Your task to perform on an android device: Open Youtube and go to the subscriptions tab Image 0: 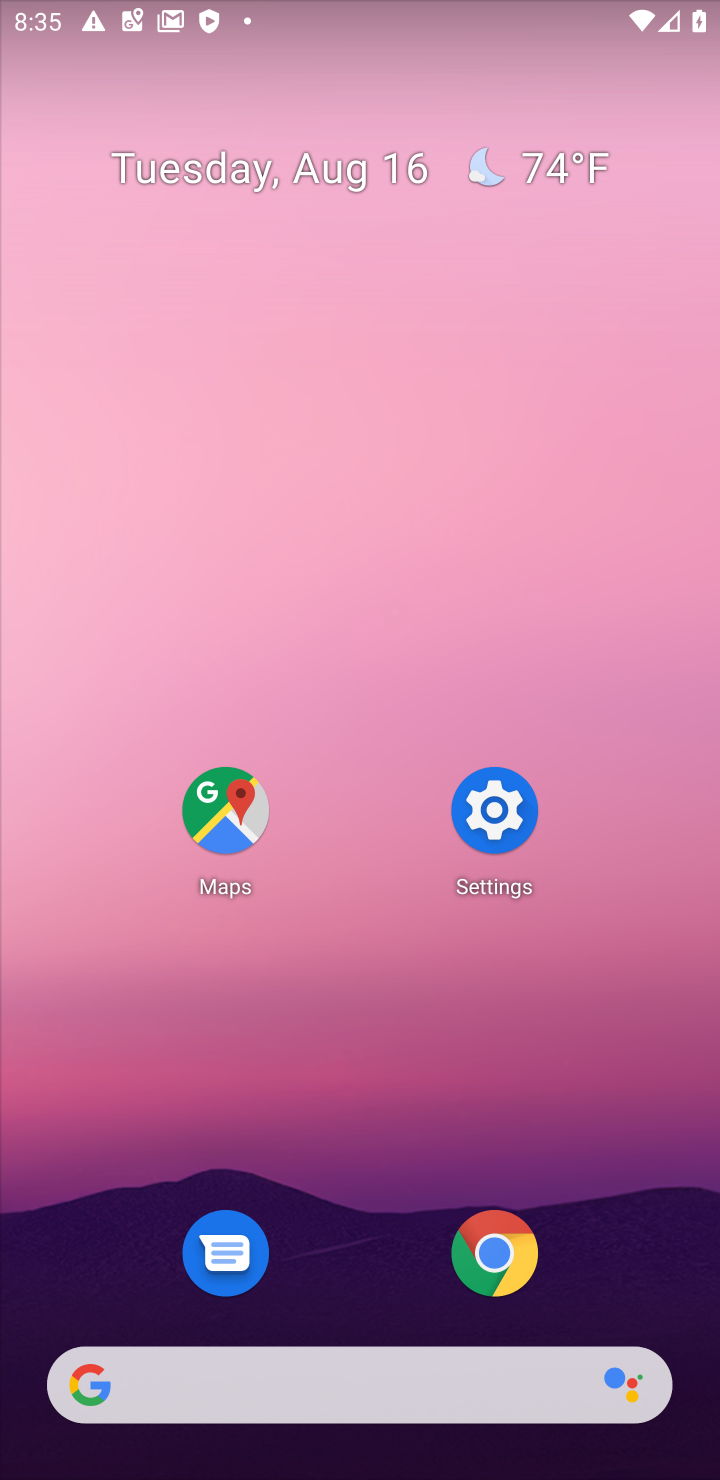
Step 0: drag from (378, 1264) to (514, 364)
Your task to perform on an android device: Open Youtube and go to the subscriptions tab Image 1: 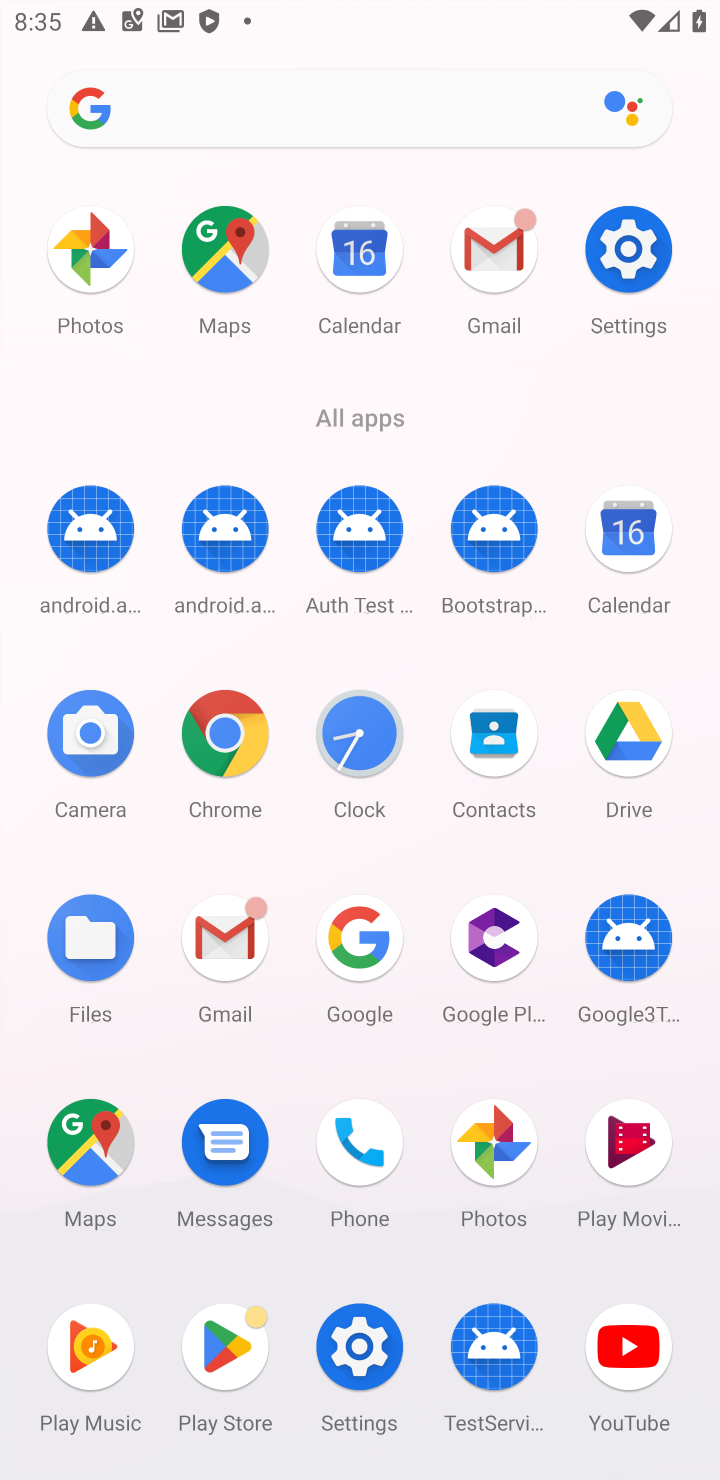
Step 1: click (612, 1347)
Your task to perform on an android device: Open Youtube and go to the subscriptions tab Image 2: 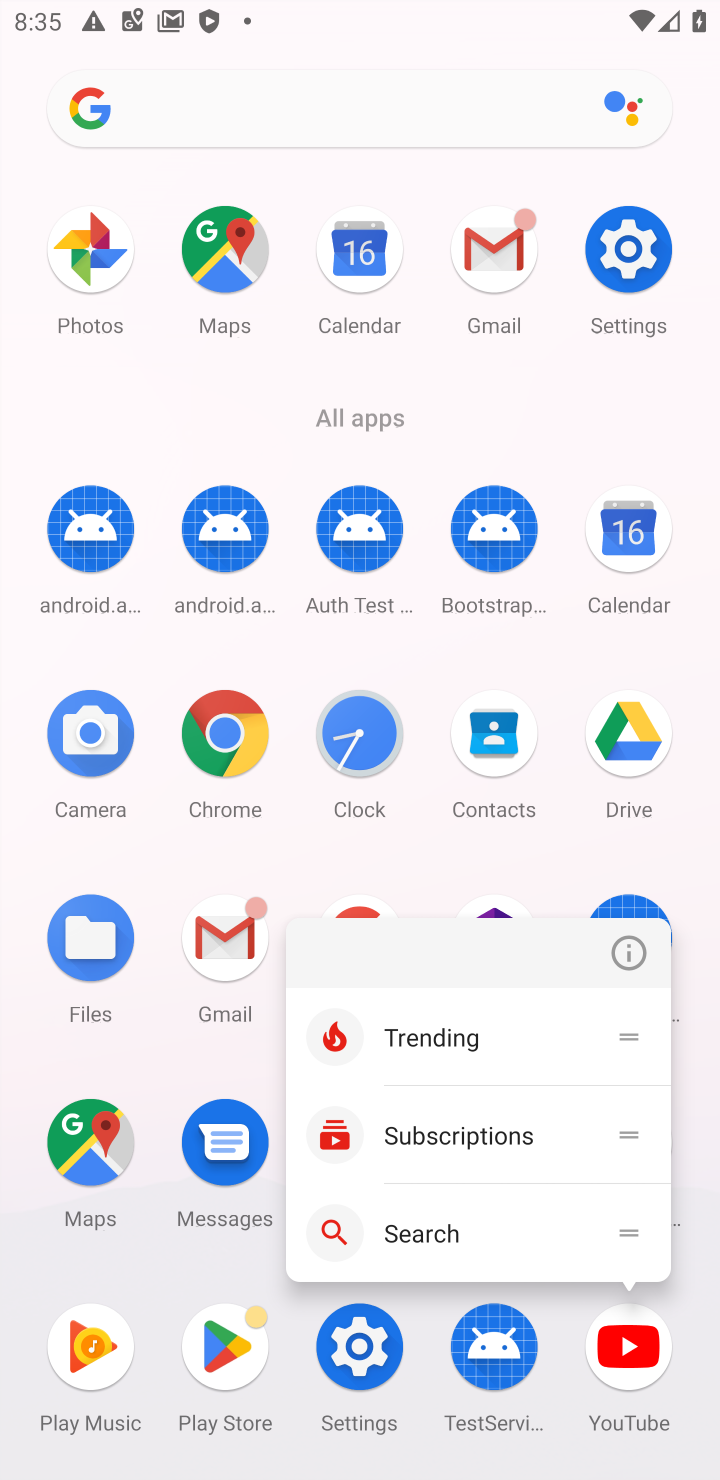
Step 2: click (623, 1352)
Your task to perform on an android device: Open Youtube and go to the subscriptions tab Image 3: 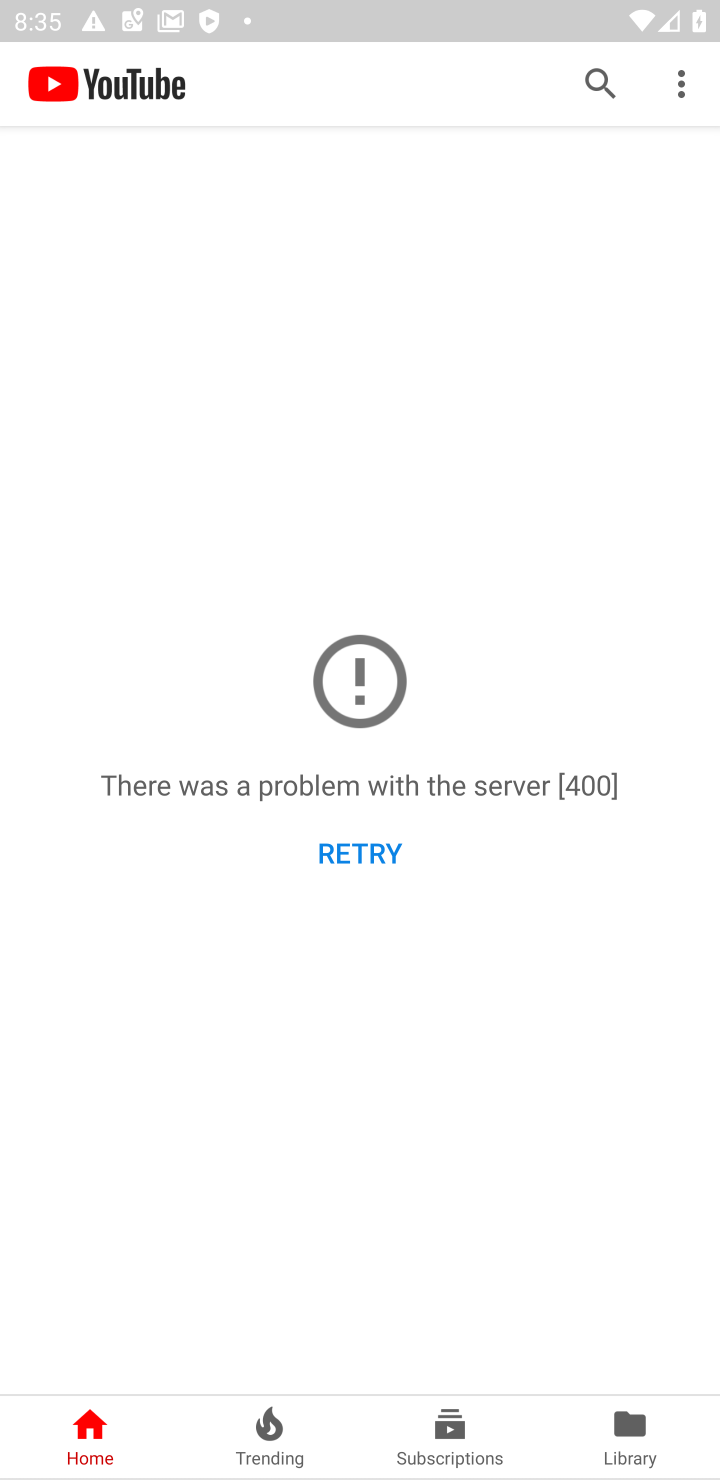
Step 3: click (346, 850)
Your task to perform on an android device: Open Youtube and go to the subscriptions tab Image 4: 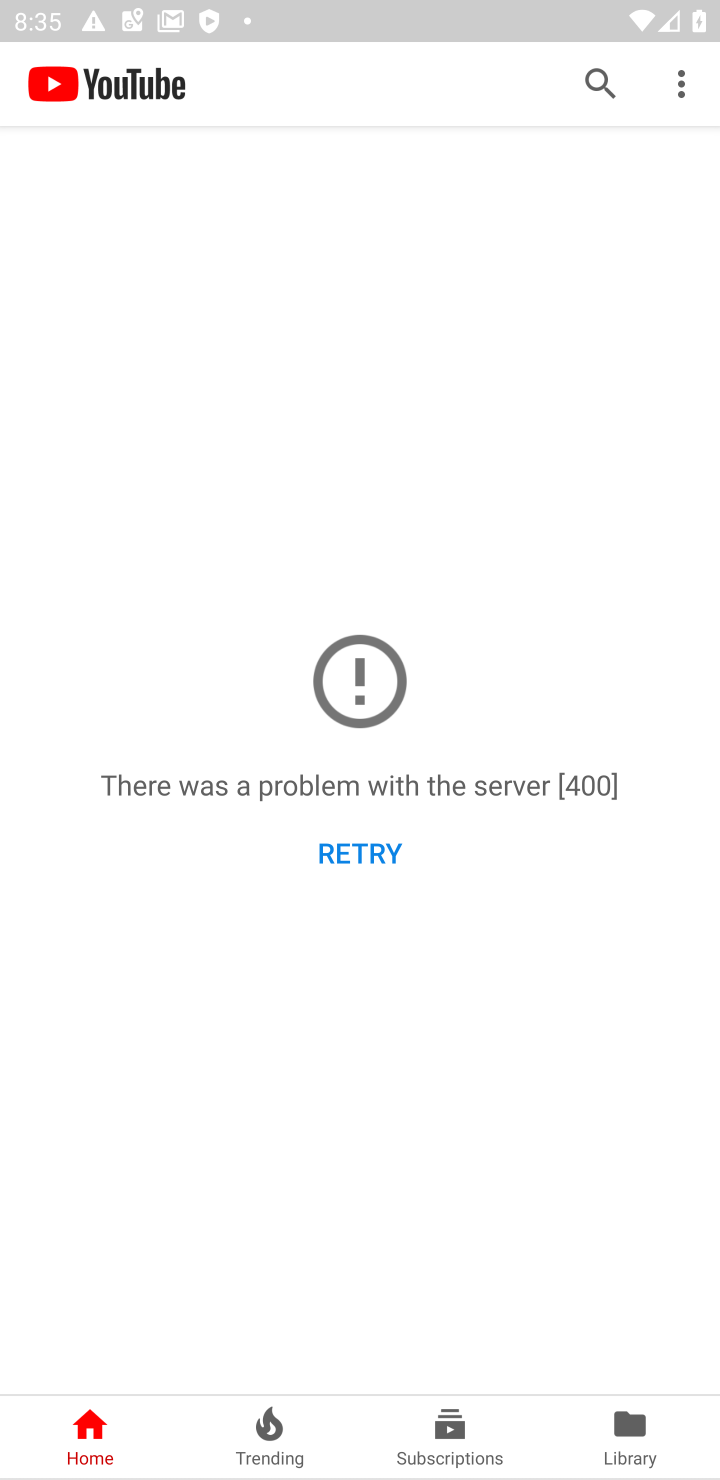
Step 4: click (456, 1434)
Your task to perform on an android device: Open Youtube and go to the subscriptions tab Image 5: 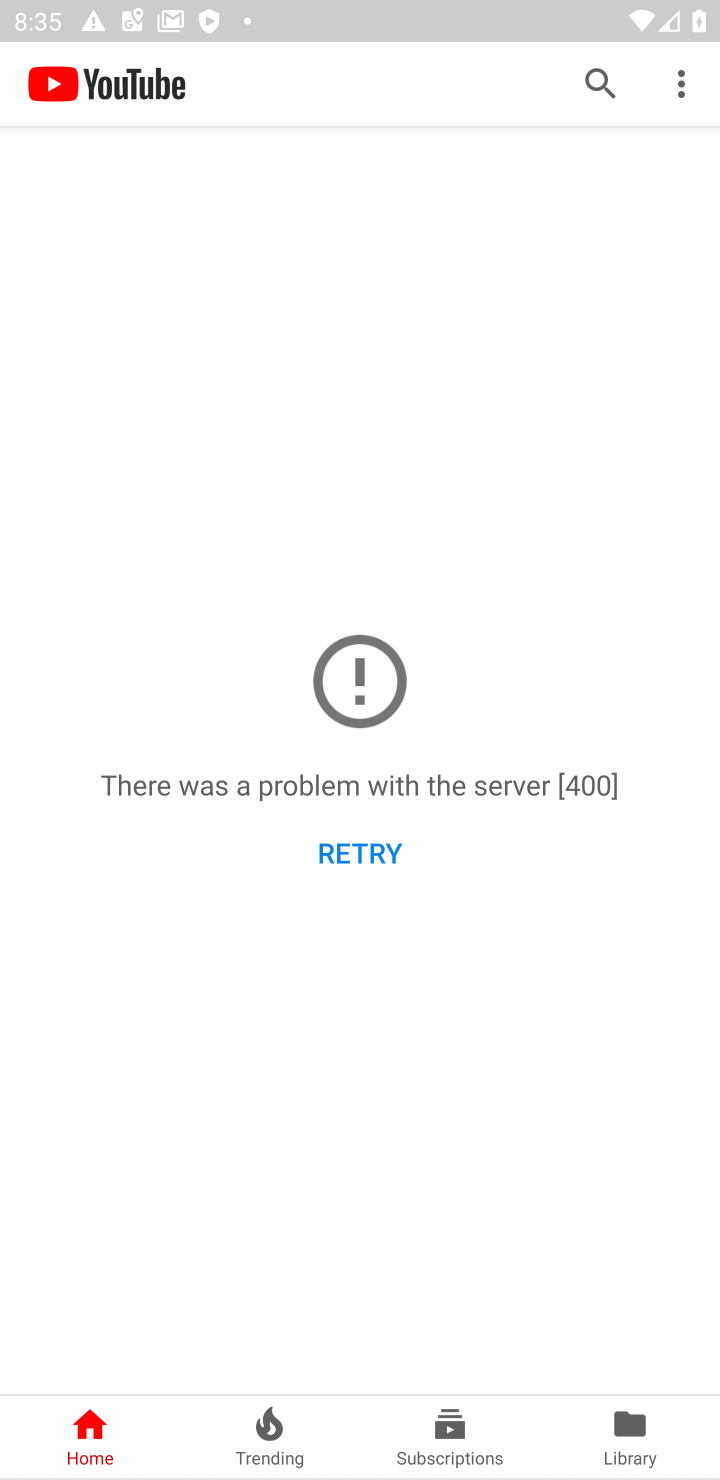
Step 5: click (452, 1453)
Your task to perform on an android device: Open Youtube and go to the subscriptions tab Image 6: 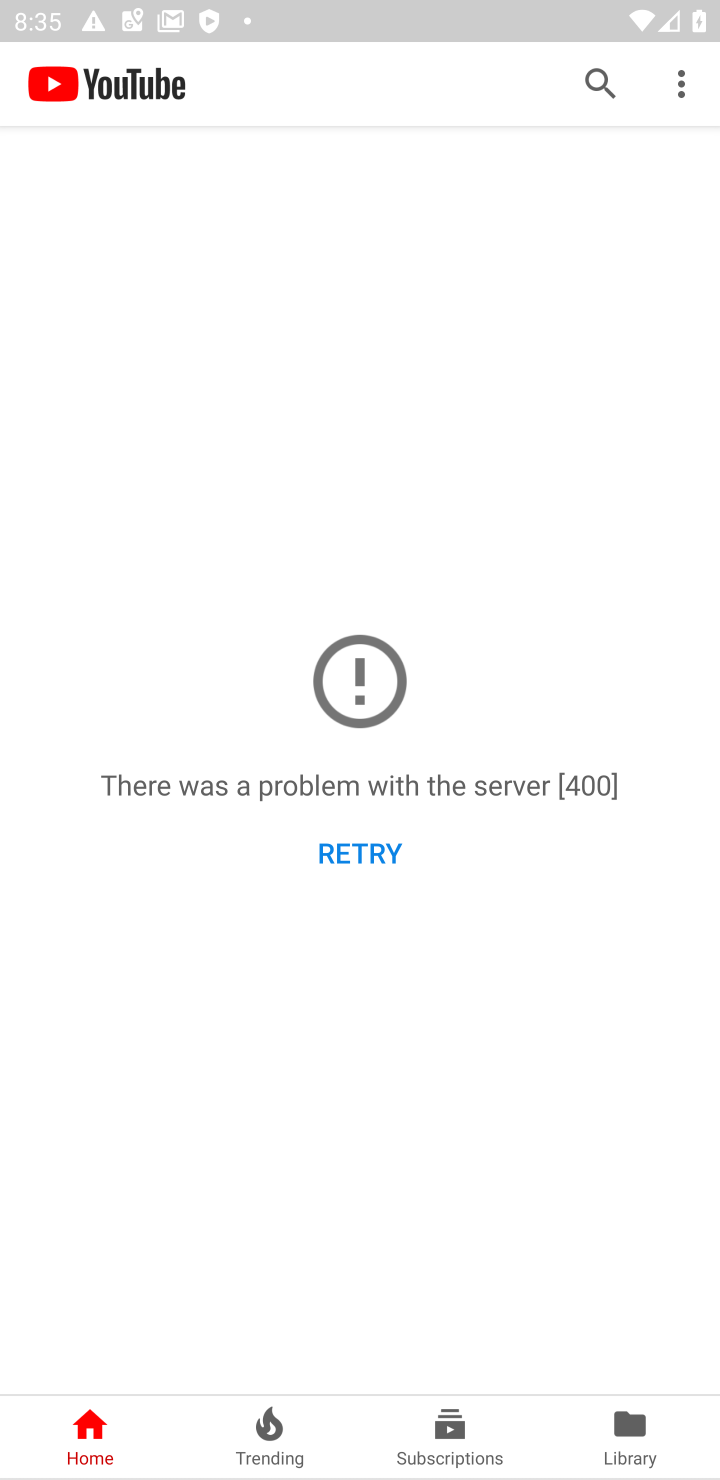
Step 6: click (444, 1423)
Your task to perform on an android device: Open Youtube and go to the subscriptions tab Image 7: 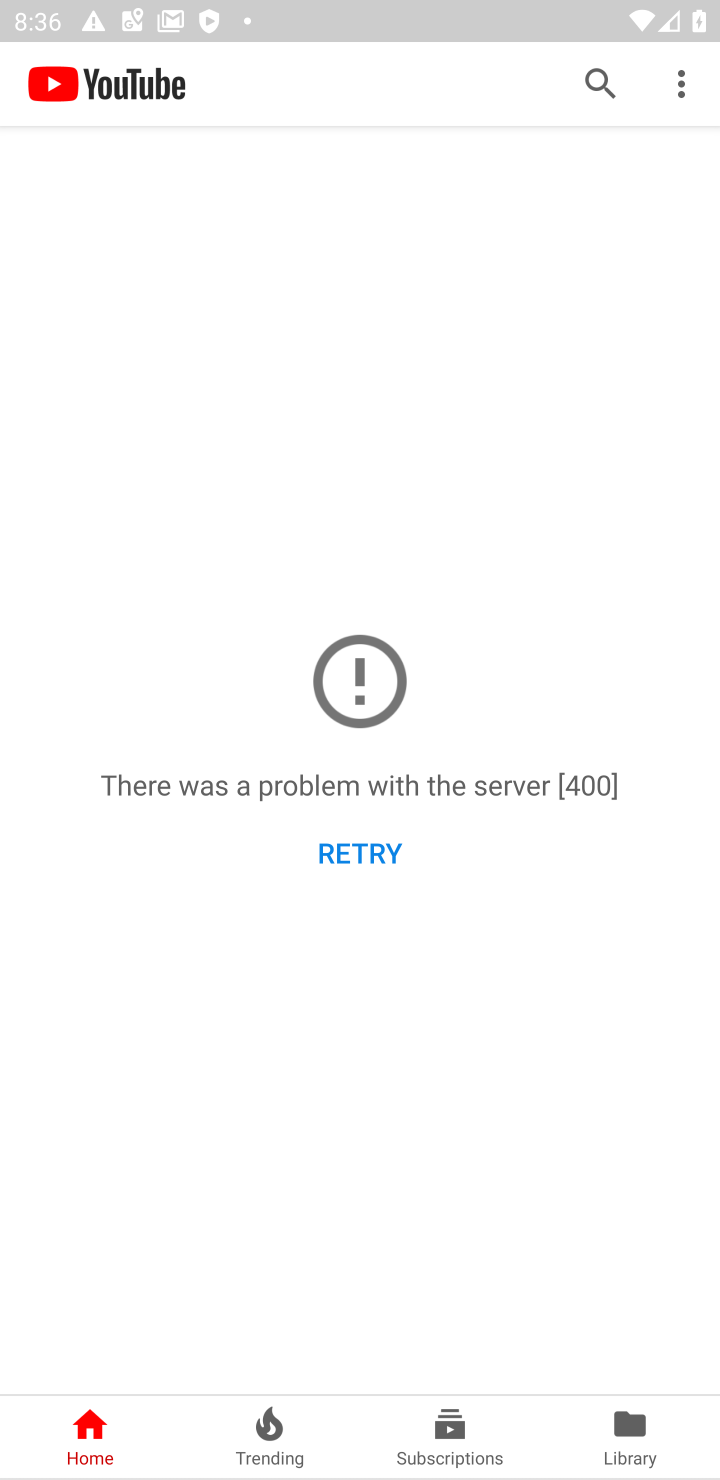
Step 7: click (440, 1436)
Your task to perform on an android device: Open Youtube and go to the subscriptions tab Image 8: 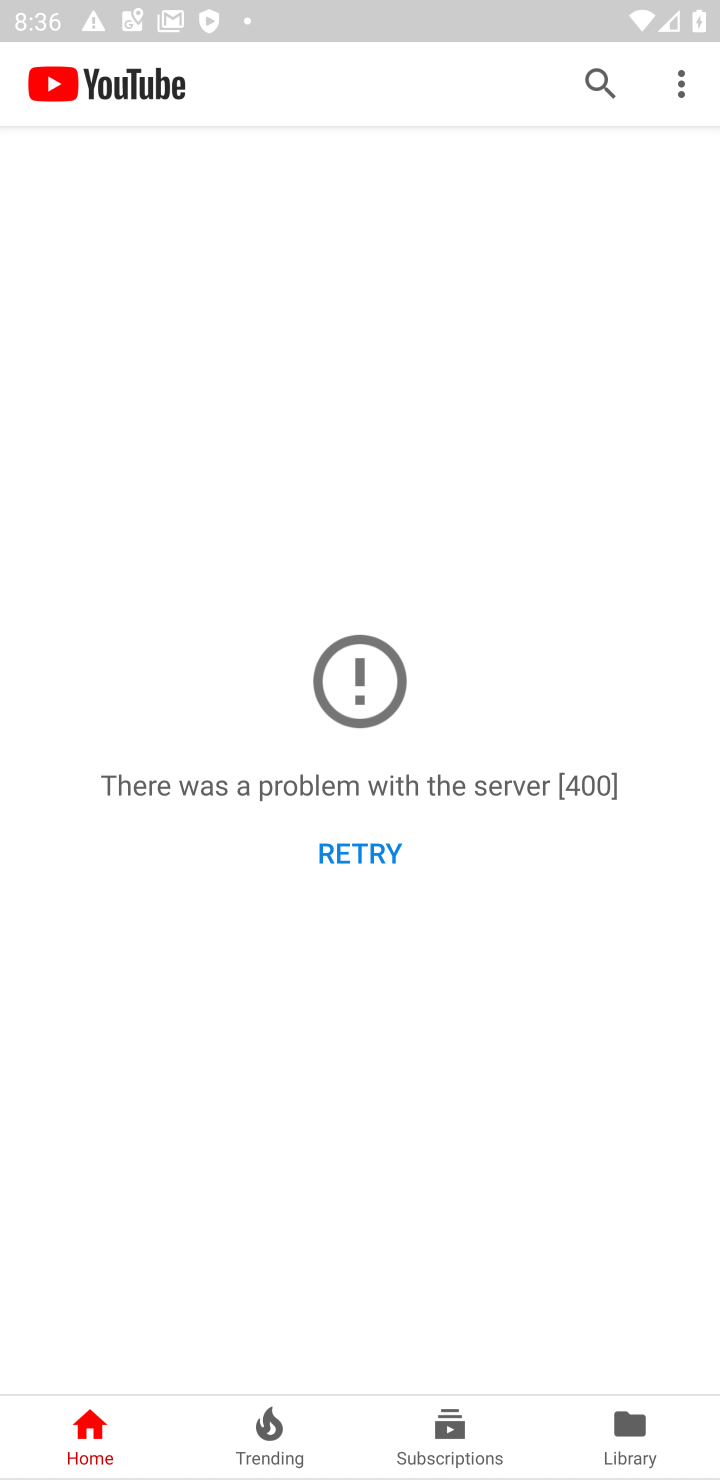
Step 8: click (440, 1450)
Your task to perform on an android device: Open Youtube and go to the subscriptions tab Image 9: 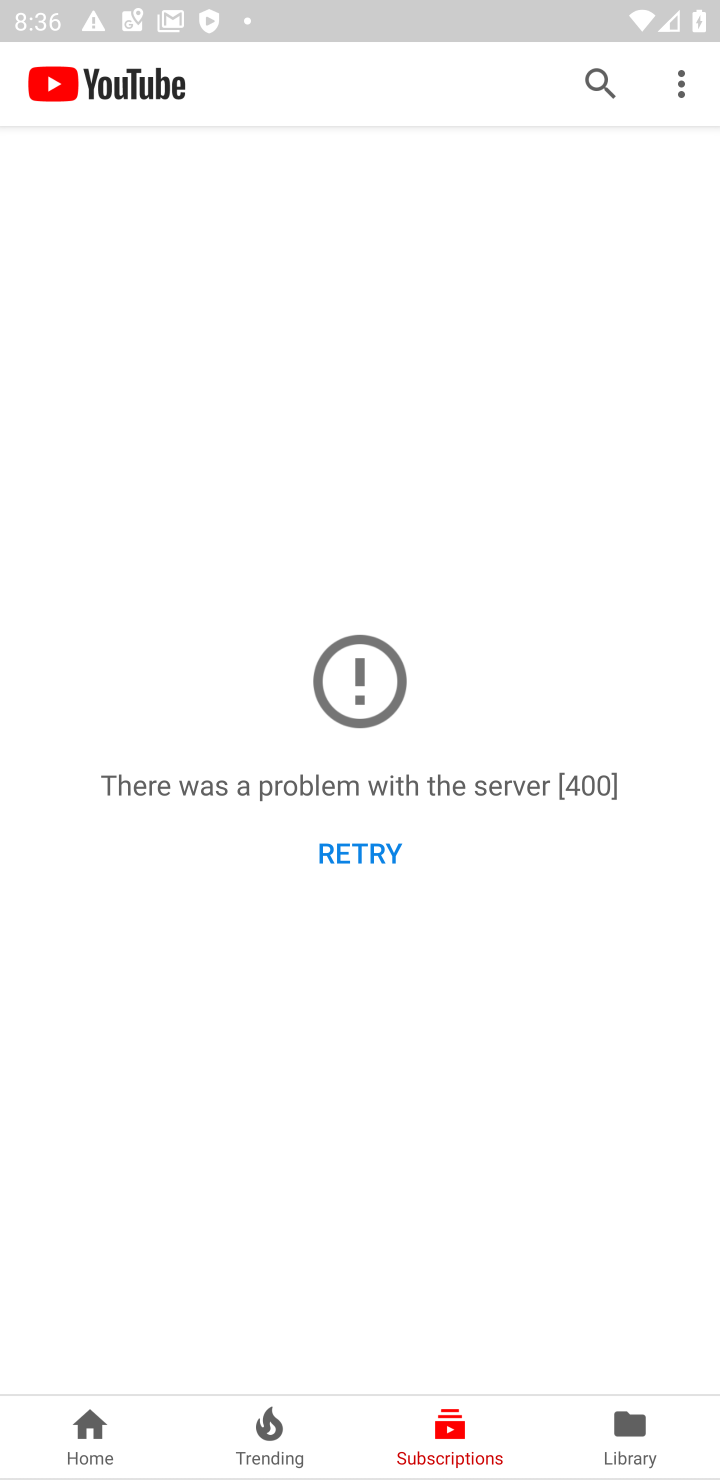
Step 9: task complete